Your task to perform on an android device: set the timer Image 0: 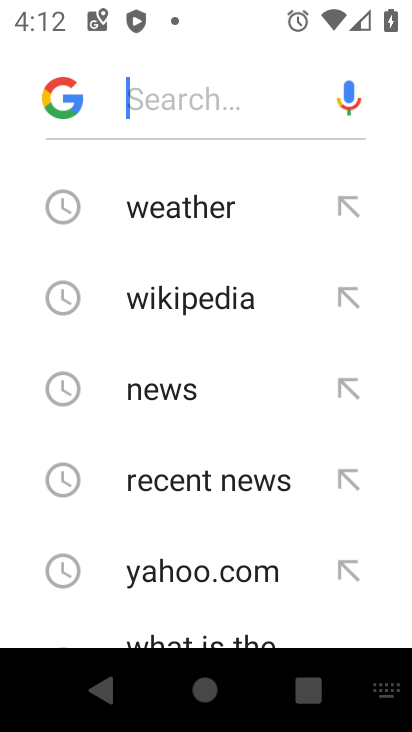
Step 0: press home button
Your task to perform on an android device: set the timer Image 1: 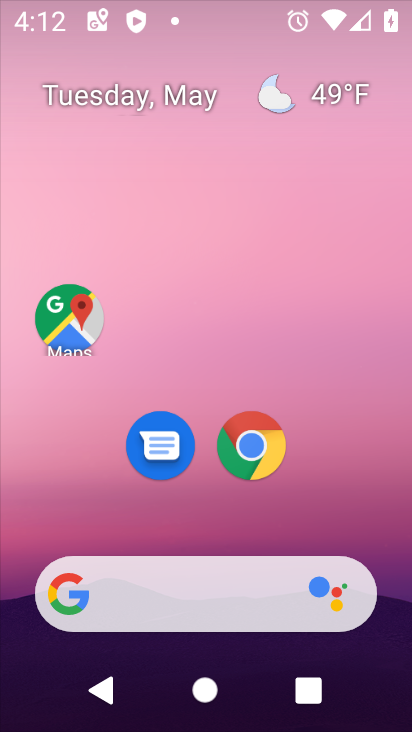
Step 1: drag from (230, 642) to (213, 57)
Your task to perform on an android device: set the timer Image 2: 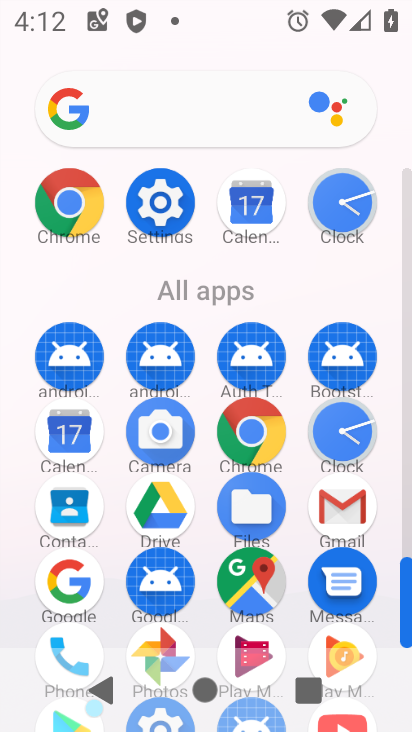
Step 2: click (330, 420)
Your task to perform on an android device: set the timer Image 3: 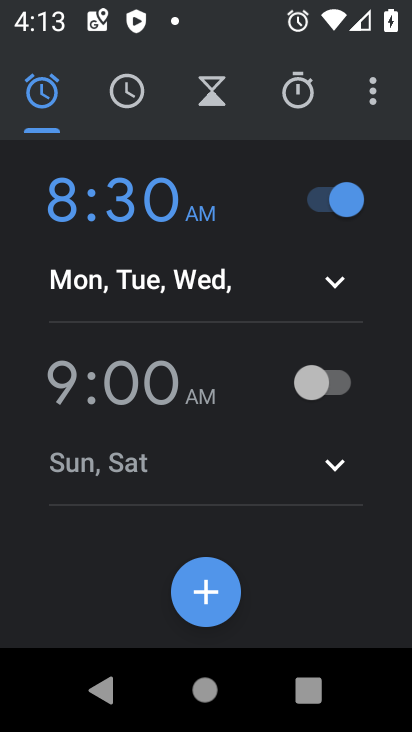
Step 3: click (297, 96)
Your task to perform on an android device: set the timer Image 4: 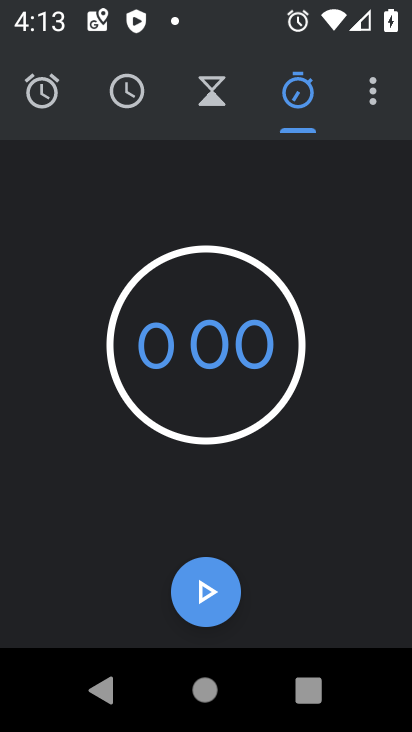
Step 4: click (223, 99)
Your task to perform on an android device: set the timer Image 5: 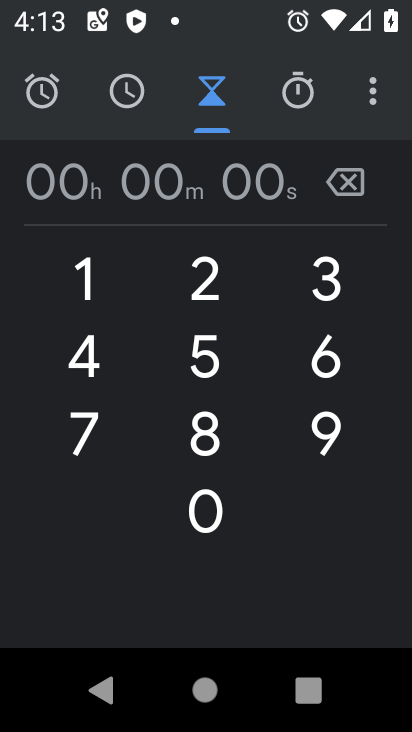
Step 5: click (208, 435)
Your task to perform on an android device: set the timer Image 6: 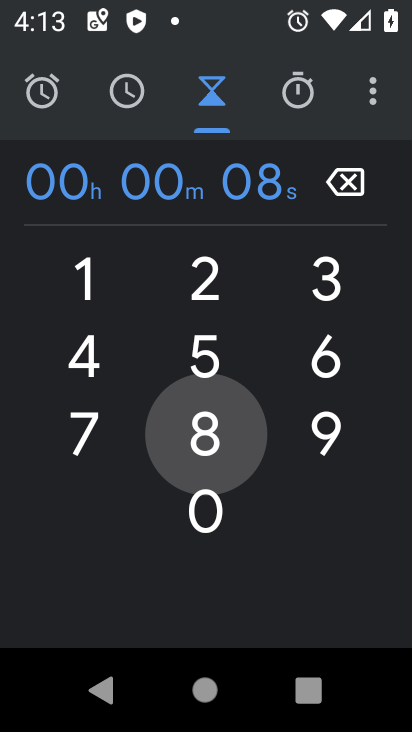
Step 6: click (326, 435)
Your task to perform on an android device: set the timer Image 7: 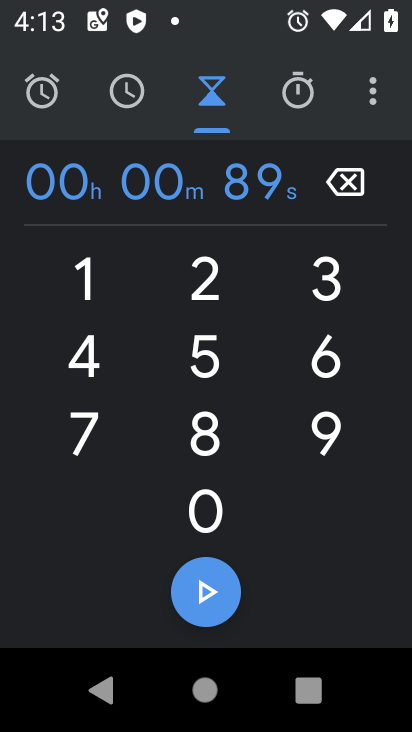
Step 7: click (222, 338)
Your task to perform on an android device: set the timer Image 8: 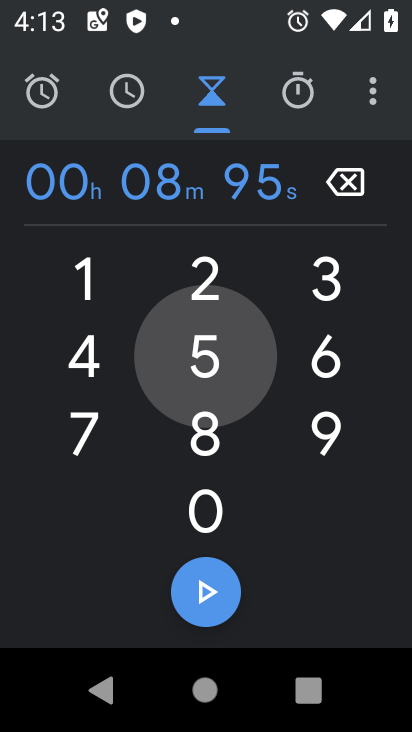
Step 8: click (320, 352)
Your task to perform on an android device: set the timer Image 9: 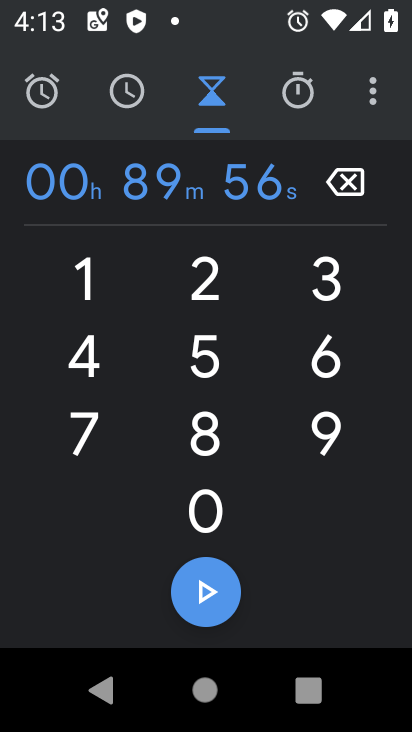
Step 9: click (223, 286)
Your task to perform on an android device: set the timer Image 10: 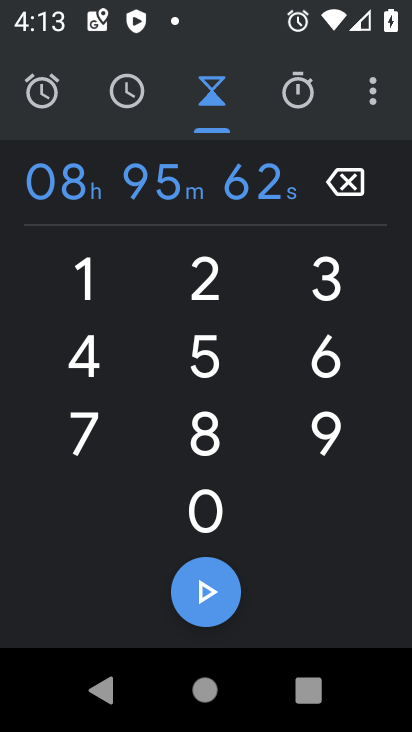
Step 10: click (305, 278)
Your task to perform on an android device: set the timer Image 11: 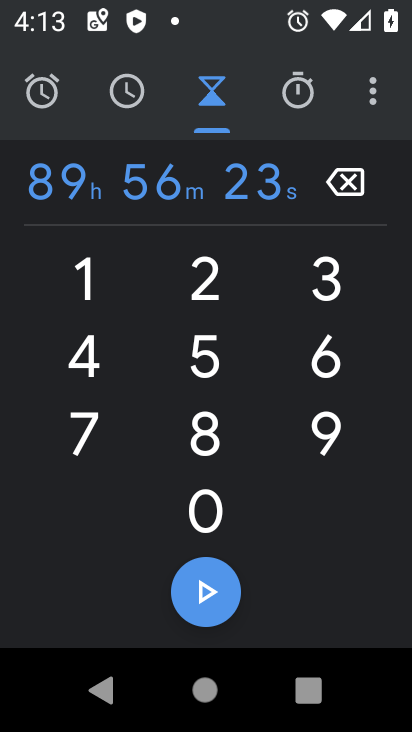
Step 11: click (213, 598)
Your task to perform on an android device: set the timer Image 12: 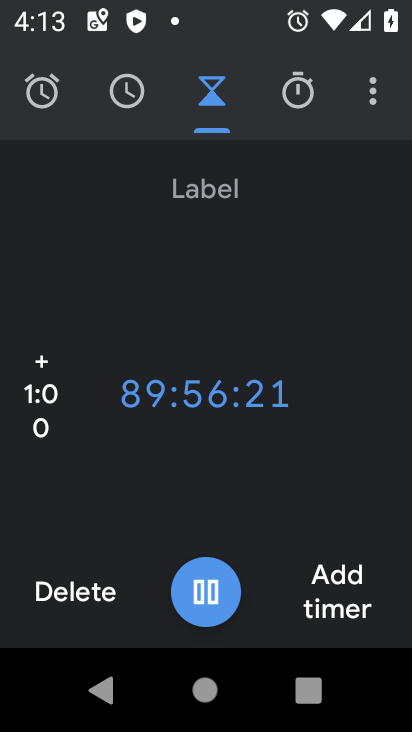
Step 12: task complete